Your task to perform on an android device: Open location settings Image 0: 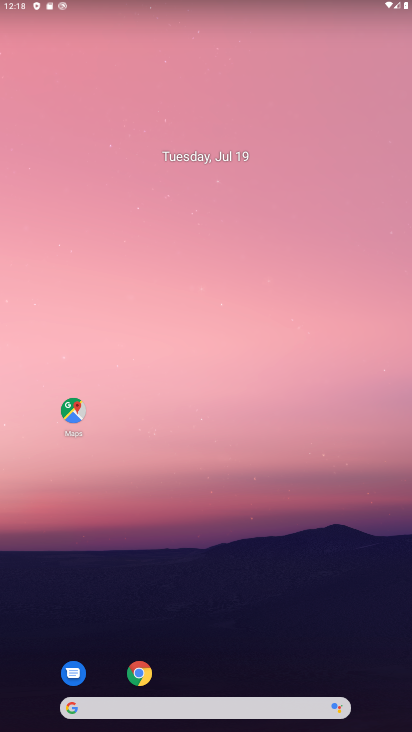
Step 0: drag from (340, 645) to (267, 159)
Your task to perform on an android device: Open location settings Image 1: 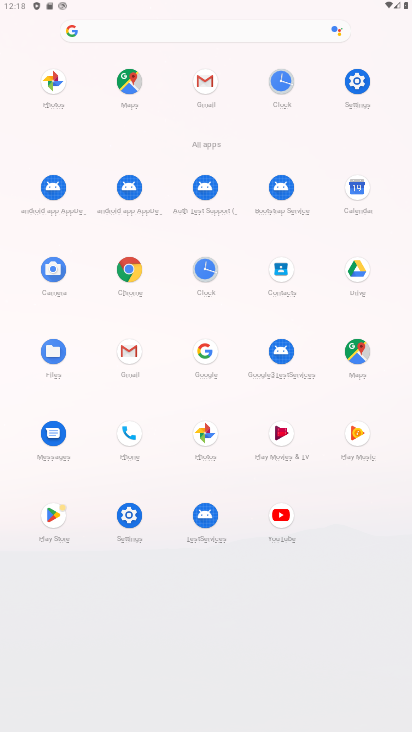
Step 1: click (354, 83)
Your task to perform on an android device: Open location settings Image 2: 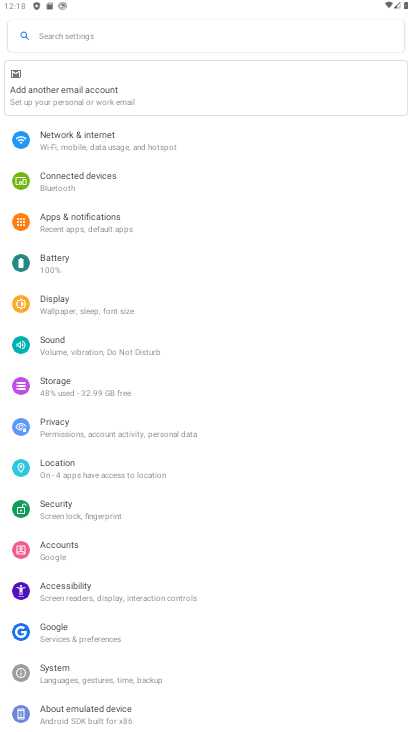
Step 2: click (186, 471)
Your task to perform on an android device: Open location settings Image 3: 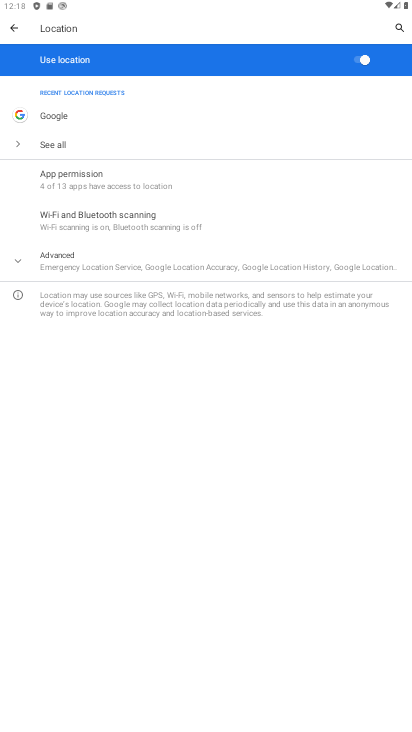
Step 3: task complete